Your task to perform on an android device: turn off picture-in-picture Image 0: 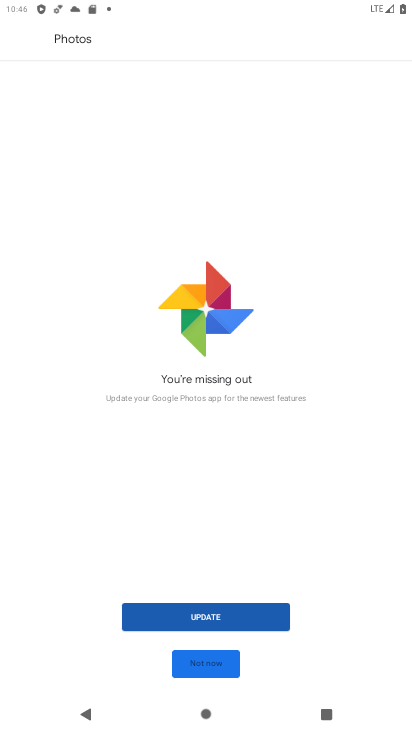
Step 0: press home button
Your task to perform on an android device: turn off picture-in-picture Image 1: 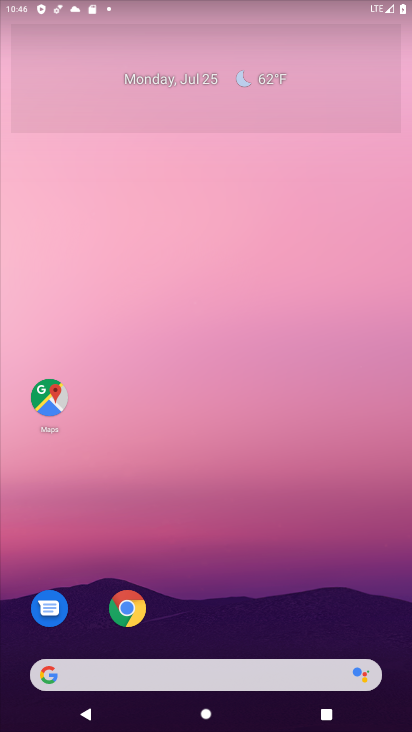
Step 1: click (128, 614)
Your task to perform on an android device: turn off picture-in-picture Image 2: 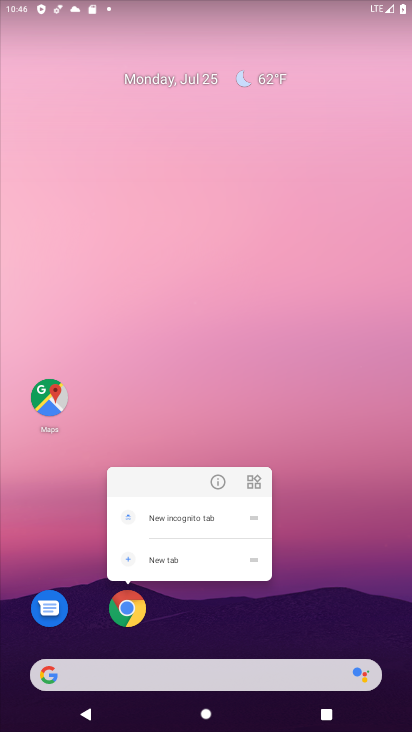
Step 2: click (215, 479)
Your task to perform on an android device: turn off picture-in-picture Image 3: 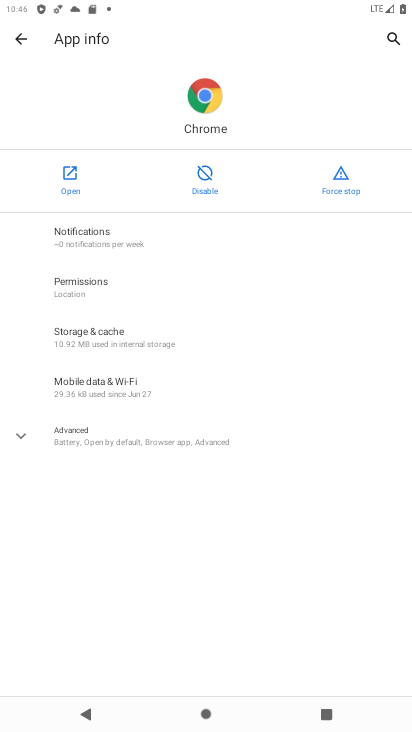
Step 3: click (95, 431)
Your task to perform on an android device: turn off picture-in-picture Image 4: 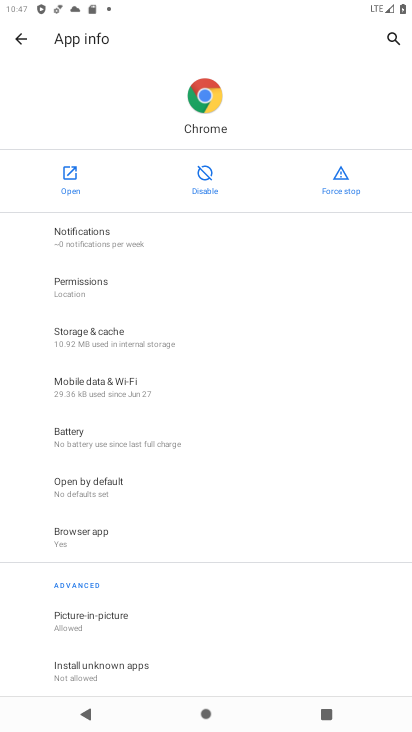
Step 4: click (99, 620)
Your task to perform on an android device: turn off picture-in-picture Image 5: 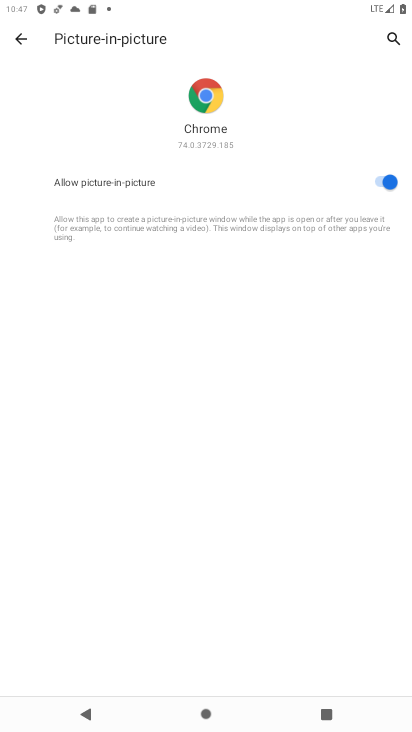
Step 5: click (366, 178)
Your task to perform on an android device: turn off picture-in-picture Image 6: 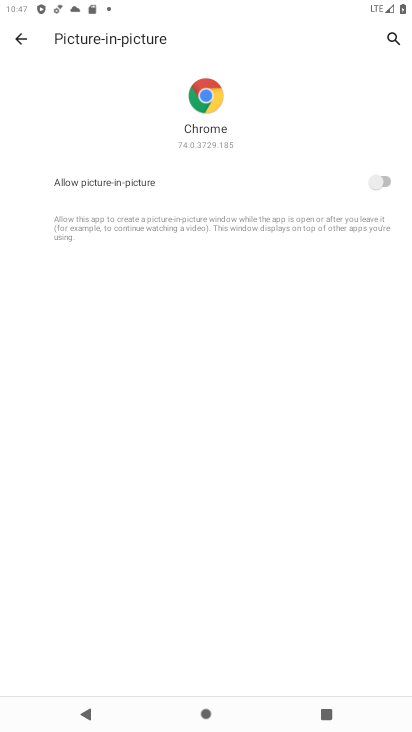
Step 6: task complete